Your task to perform on an android device: turn off smart reply in the gmail app Image 0: 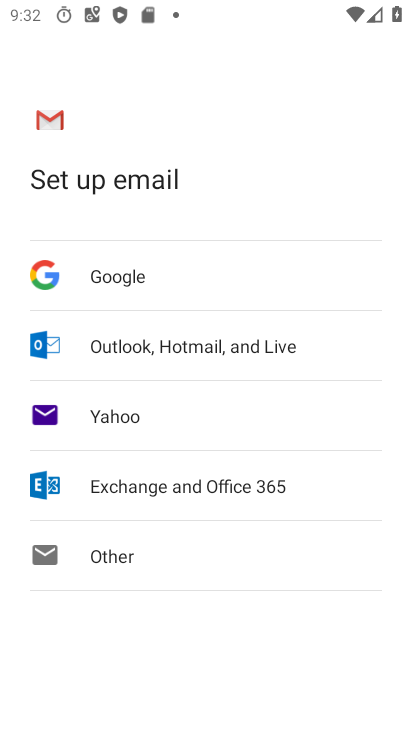
Step 0: press home button
Your task to perform on an android device: turn off smart reply in the gmail app Image 1: 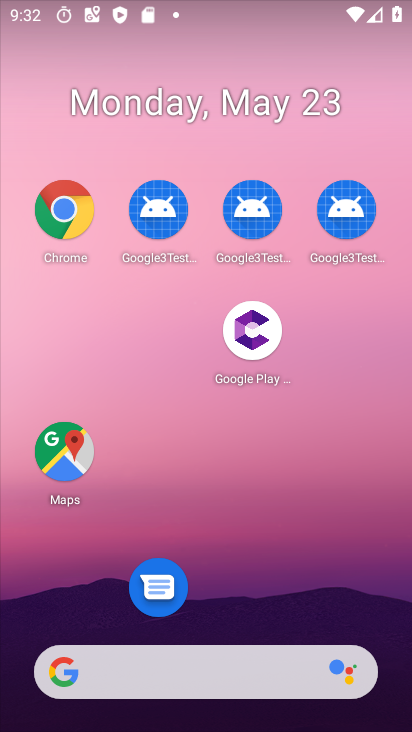
Step 1: drag from (270, 587) to (259, 89)
Your task to perform on an android device: turn off smart reply in the gmail app Image 2: 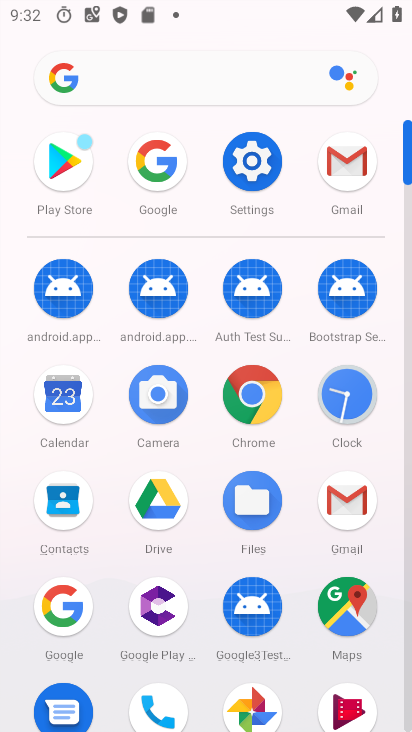
Step 2: click (345, 524)
Your task to perform on an android device: turn off smart reply in the gmail app Image 3: 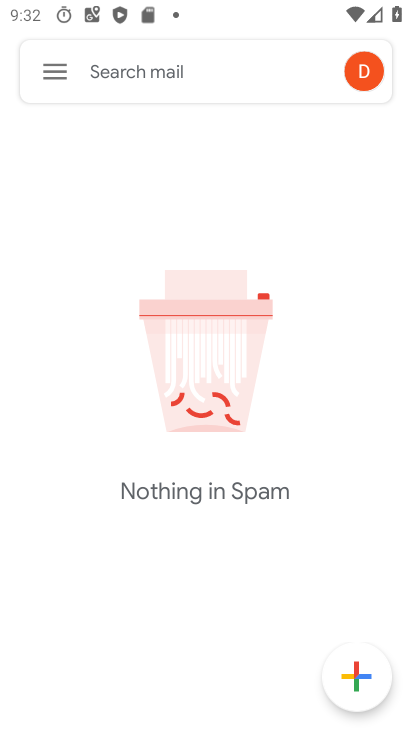
Step 3: click (57, 62)
Your task to perform on an android device: turn off smart reply in the gmail app Image 4: 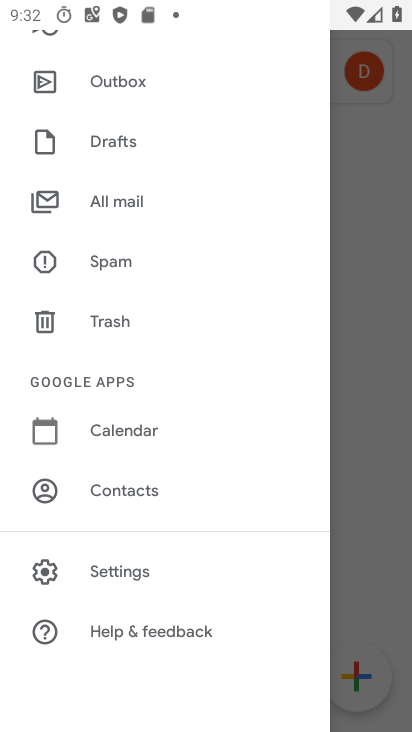
Step 4: click (142, 565)
Your task to perform on an android device: turn off smart reply in the gmail app Image 5: 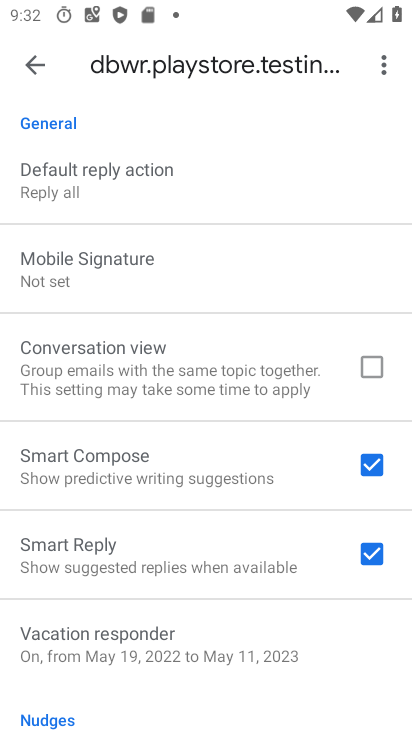
Step 5: click (371, 546)
Your task to perform on an android device: turn off smart reply in the gmail app Image 6: 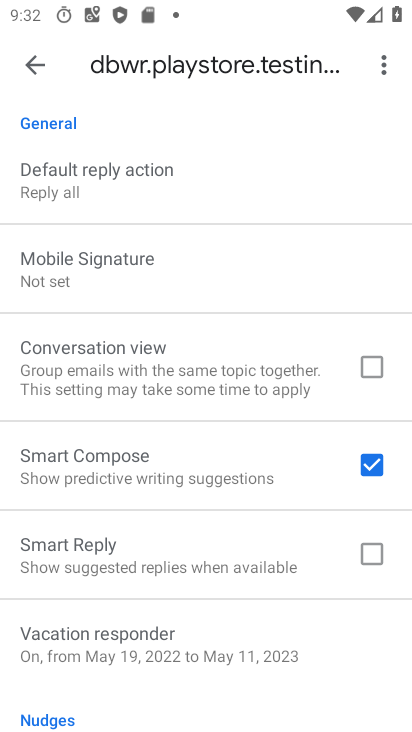
Step 6: task complete